Your task to perform on an android device: Go to Android settings Image 0: 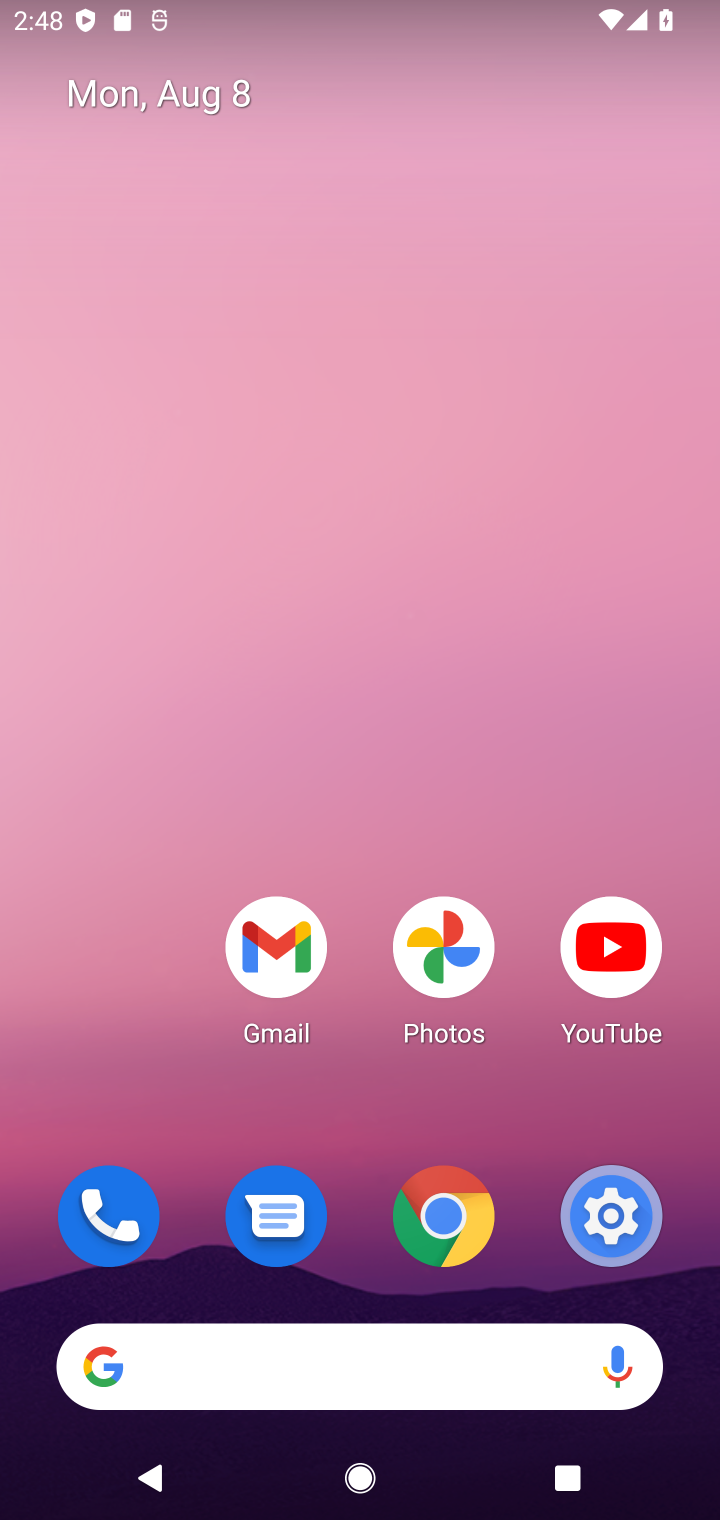
Step 0: click (601, 1254)
Your task to perform on an android device: Go to Android settings Image 1: 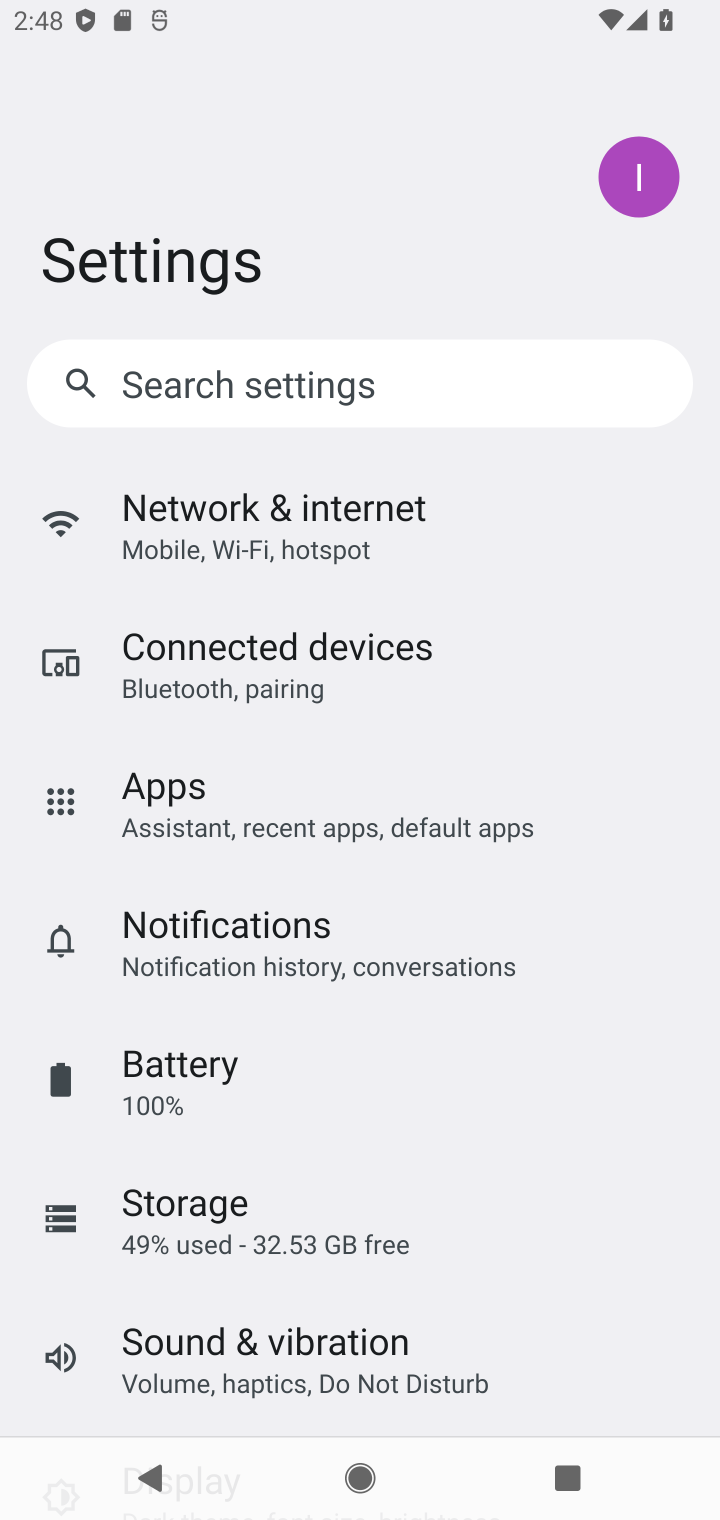
Step 1: task complete